Your task to perform on an android device: Open settings on Google Maps Image 0: 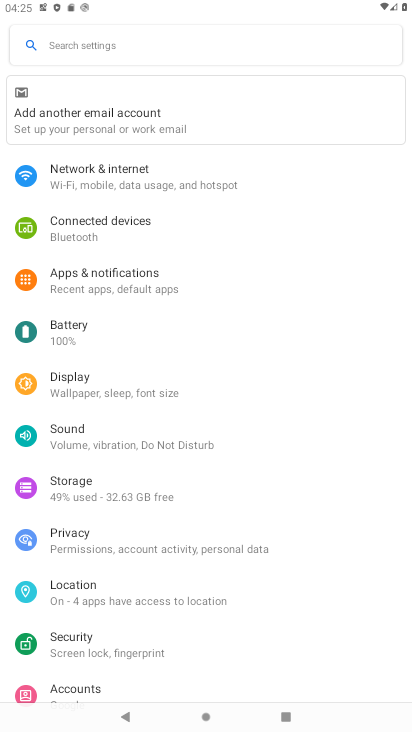
Step 0: press home button
Your task to perform on an android device: Open settings on Google Maps Image 1: 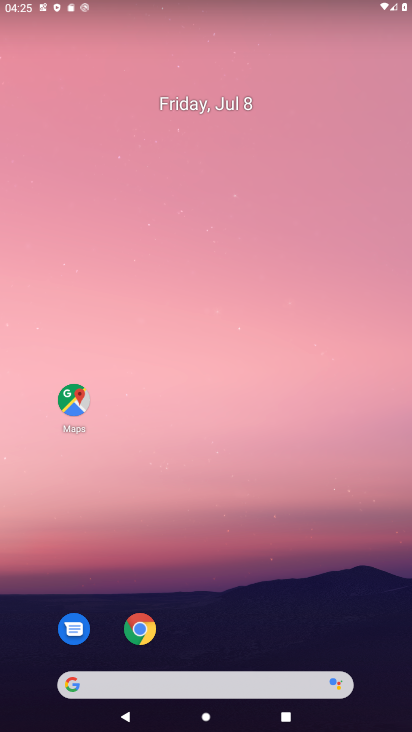
Step 1: drag from (242, 716) to (231, 173)
Your task to perform on an android device: Open settings on Google Maps Image 2: 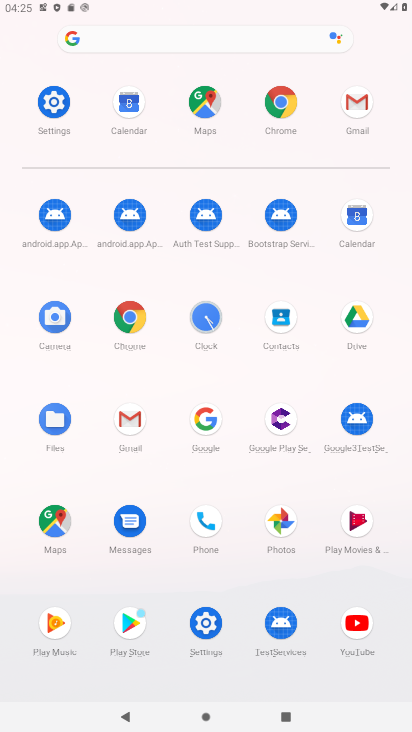
Step 2: click (54, 520)
Your task to perform on an android device: Open settings on Google Maps Image 3: 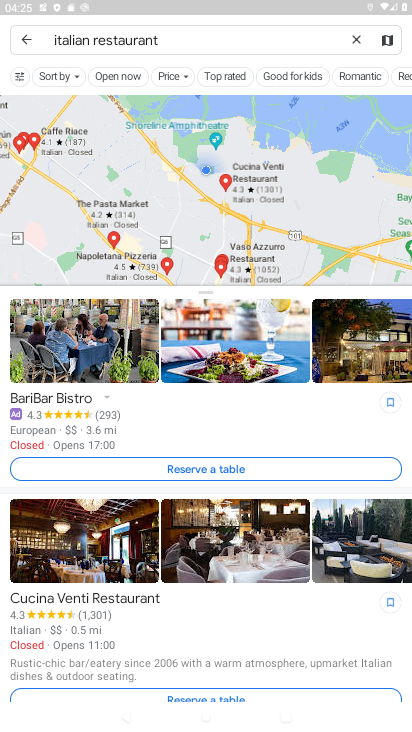
Step 3: click (26, 38)
Your task to perform on an android device: Open settings on Google Maps Image 4: 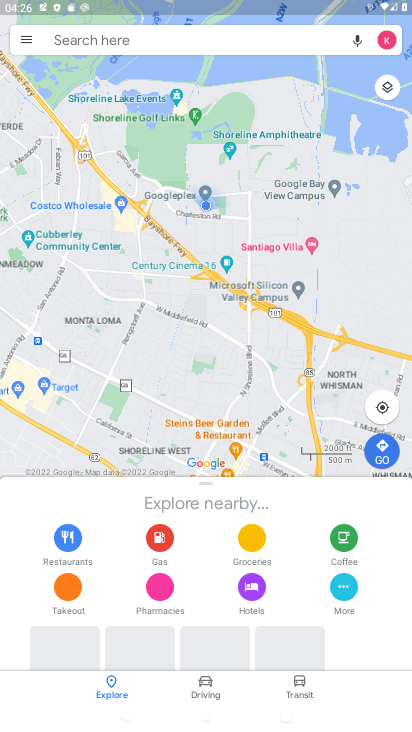
Step 4: click (26, 38)
Your task to perform on an android device: Open settings on Google Maps Image 5: 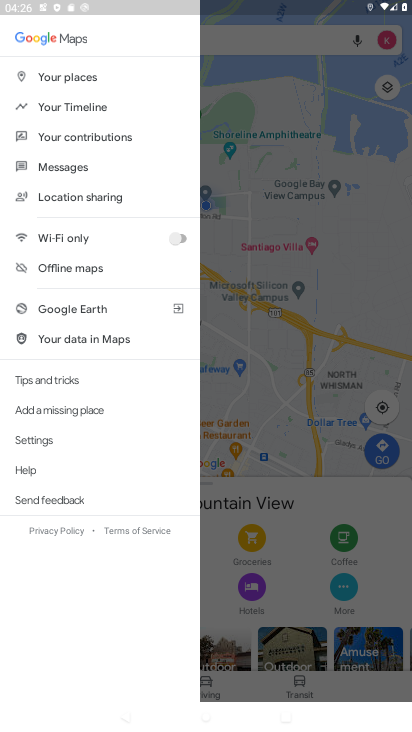
Step 5: click (40, 435)
Your task to perform on an android device: Open settings on Google Maps Image 6: 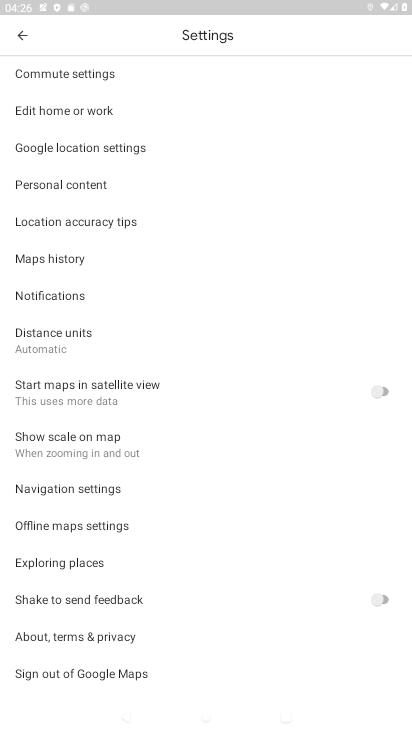
Step 6: task complete